Your task to perform on an android device: turn off data saver in the chrome app Image 0: 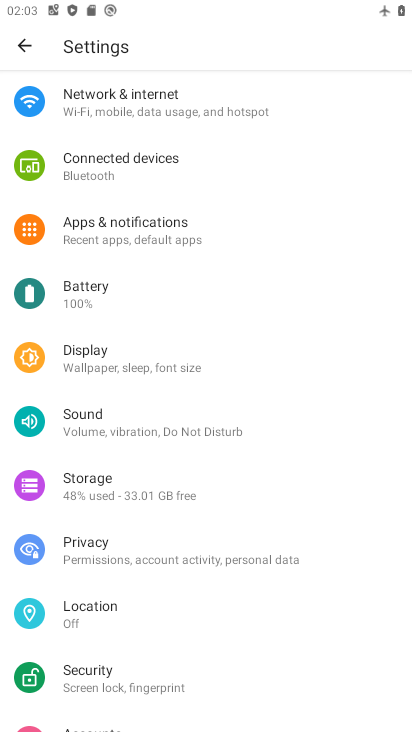
Step 0: press home button
Your task to perform on an android device: turn off data saver in the chrome app Image 1: 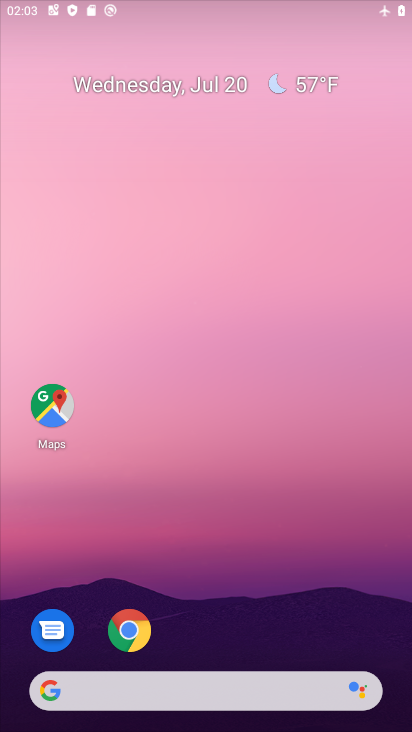
Step 1: drag from (244, 576) to (282, 76)
Your task to perform on an android device: turn off data saver in the chrome app Image 2: 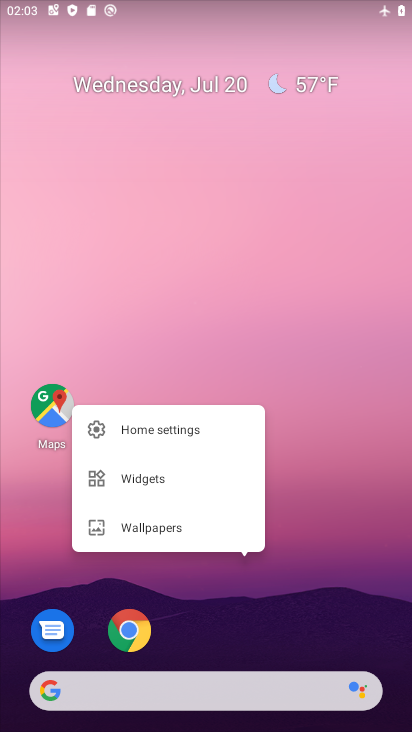
Step 2: click (351, 446)
Your task to perform on an android device: turn off data saver in the chrome app Image 3: 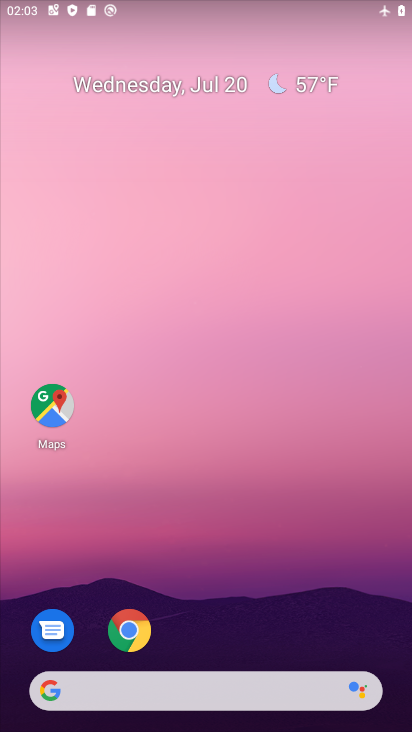
Step 3: drag from (272, 556) to (159, 11)
Your task to perform on an android device: turn off data saver in the chrome app Image 4: 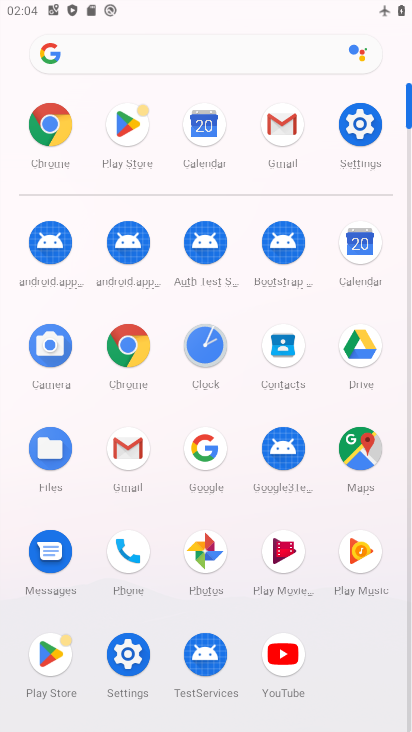
Step 4: click (123, 350)
Your task to perform on an android device: turn off data saver in the chrome app Image 5: 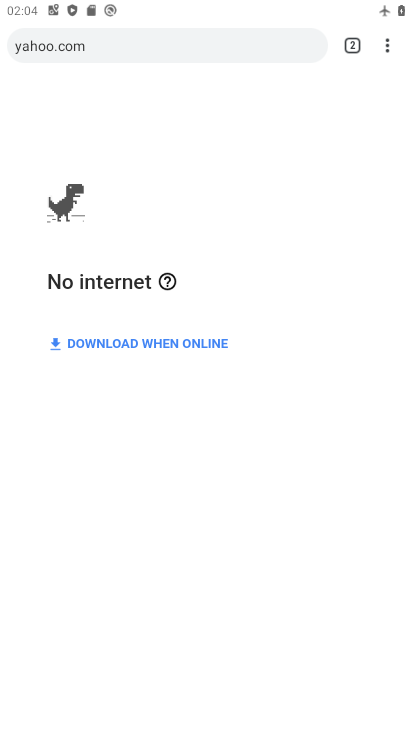
Step 5: drag from (387, 40) to (231, 554)
Your task to perform on an android device: turn off data saver in the chrome app Image 6: 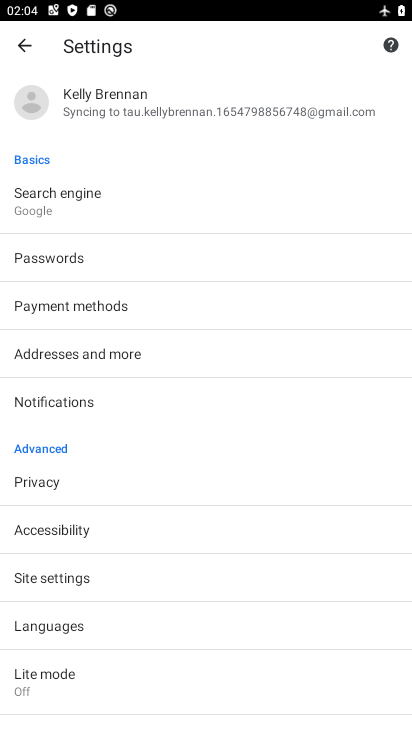
Step 6: drag from (168, 585) to (192, 206)
Your task to perform on an android device: turn off data saver in the chrome app Image 7: 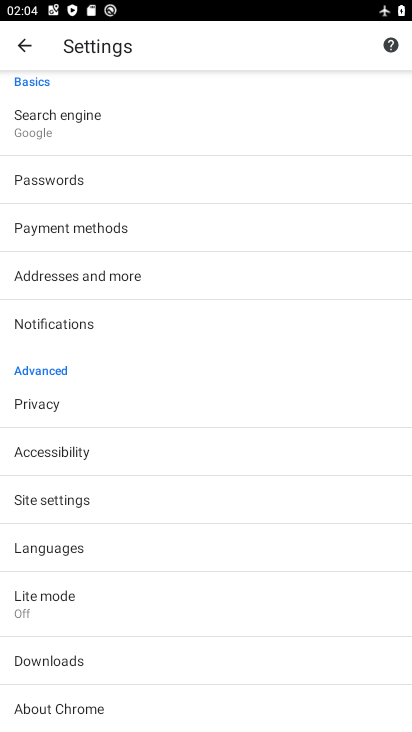
Step 7: click (88, 599)
Your task to perform on an android device: turn off data saver in the chrome app Image 8: 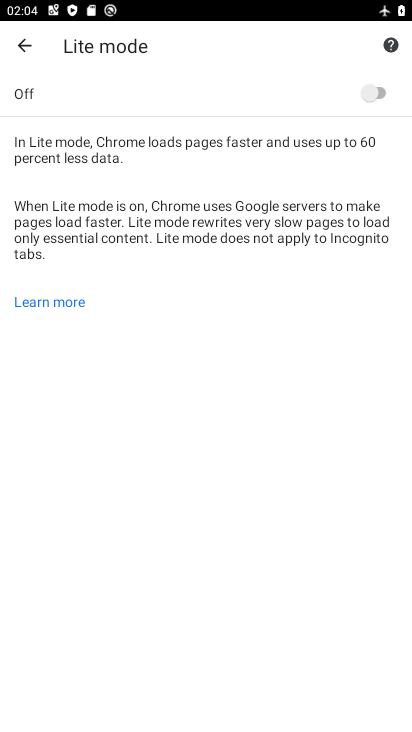
Step 8: task complete